Your task to perform on an android device: Turn off the flashlight Image 0: 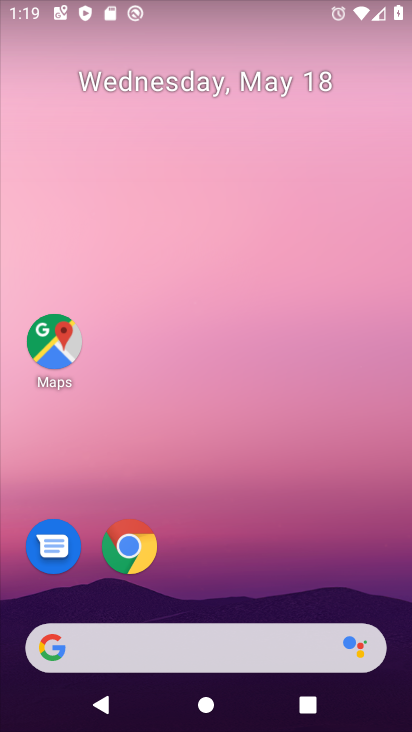
Step 0: drag from (226, 624) to (294, 157)
Your task to perform on an android device: Turn off the flashlight Image 1: 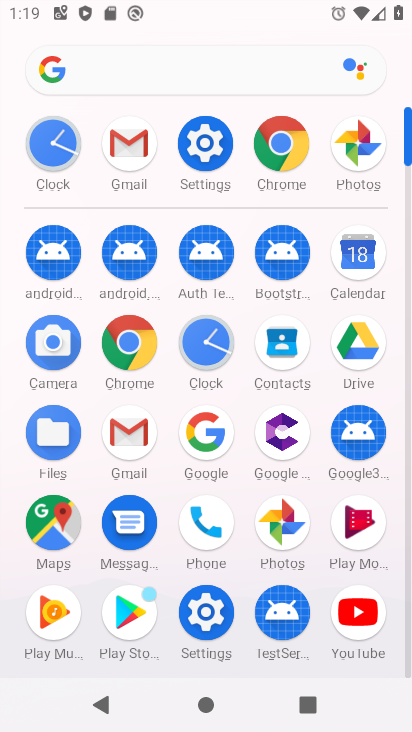
Step 1: task complete